Your task to perform on an android device: Go to ESPN.com Image 0: 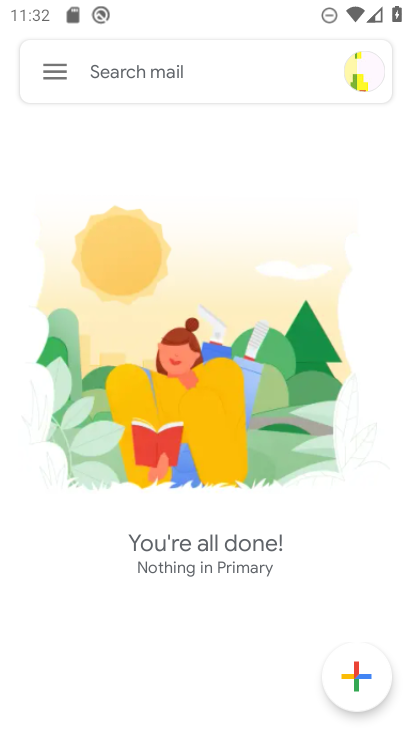
Step 0: press home button
Your task to perform on an android device: Go to ESPN.com Image 1: 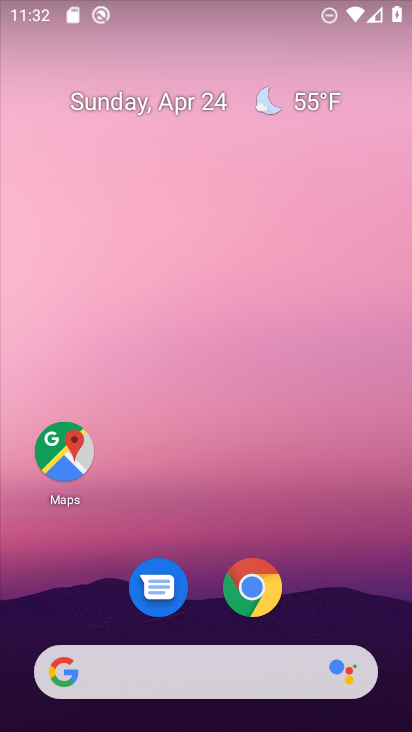
Step 1: drag from (304, 585) to (270, 30)
Your task to perform on an android device: Go to ESPN.com Image 2: 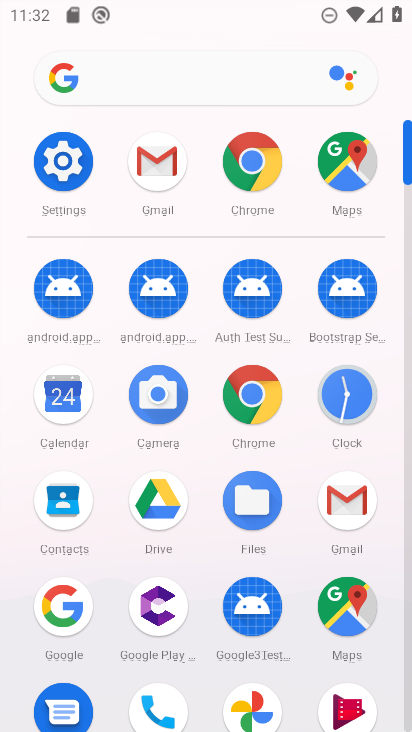
Step 2: click (244, 396)
Your task to perform on an android device: Go to ESPN.com Image 3: 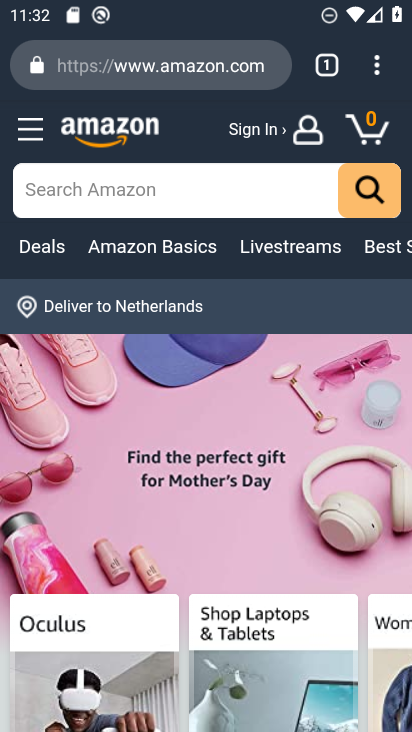
Step 3: click (212, 82)
Your task to perform on an android device: Go to ESPN.com Image 4: 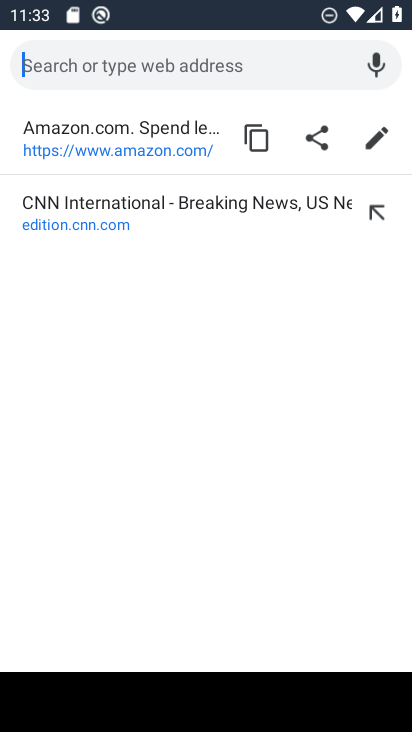
Step 4: type "espn.com"
Your task to perform on an android device: Go to ESPN.com Image 5: 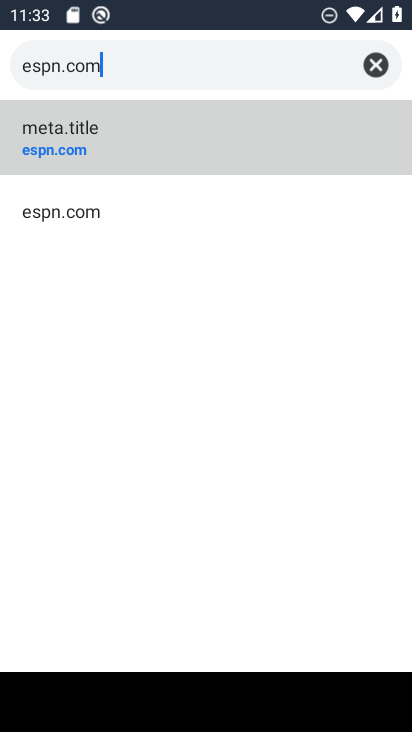
Step 5: click (39, 140)
Your task to perform on an android device: Go to ESPN.com Image 6: 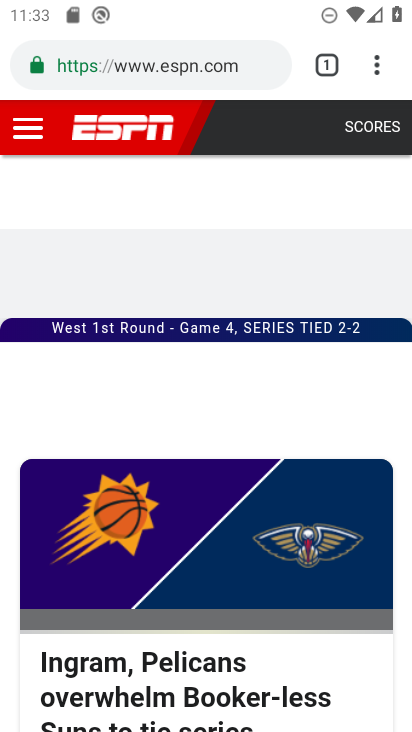
Step 6: task complete